Your task to perform on an android device: turn pop-ups on in chrome Image 0: 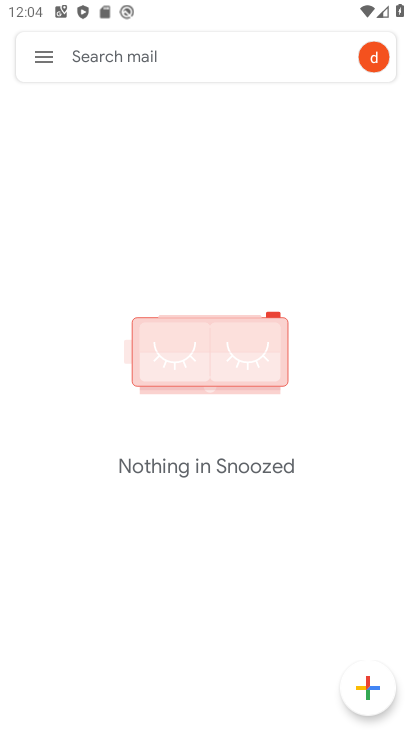
Step 0: press home button
Your task to perform on an android device: turn pop-ups on in chrome Image 1: 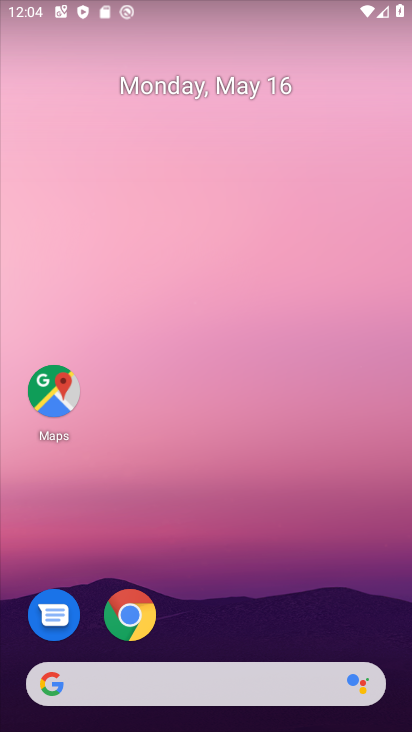
Step 1: drag from (243, 650) to (282, 8)
Your task to perform on an android device: turn pop-ups on in chrome Image 2: 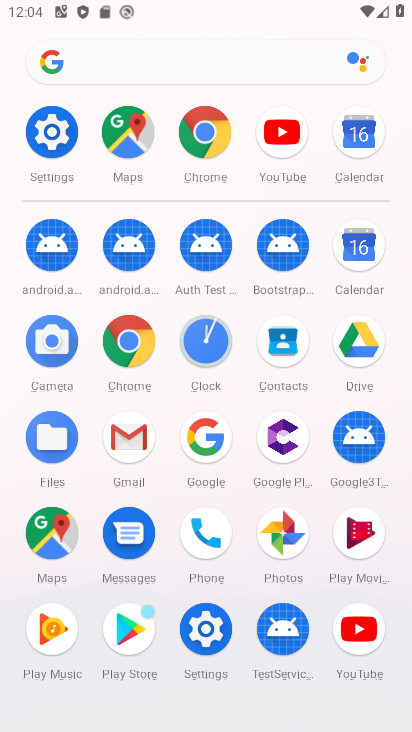
Step 2: click (132, 345)
Your task to perform on an android device: turn pop-ups on in chrome Image 3: 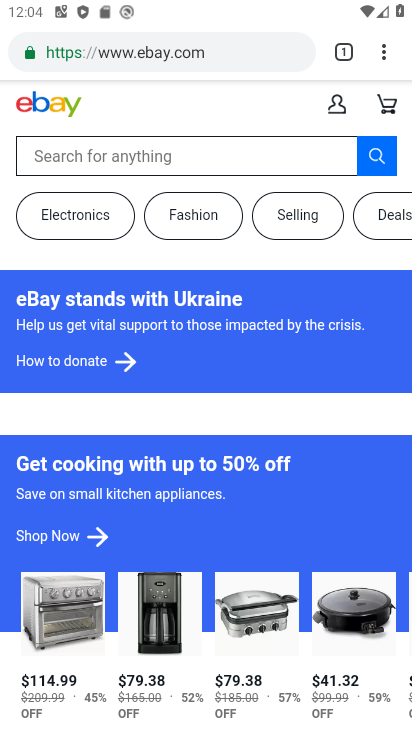
Step 3: drag from (382, 44) to (281, 500)
Your task to perform on an android device: turn pop-ups on in chrome Image 4: 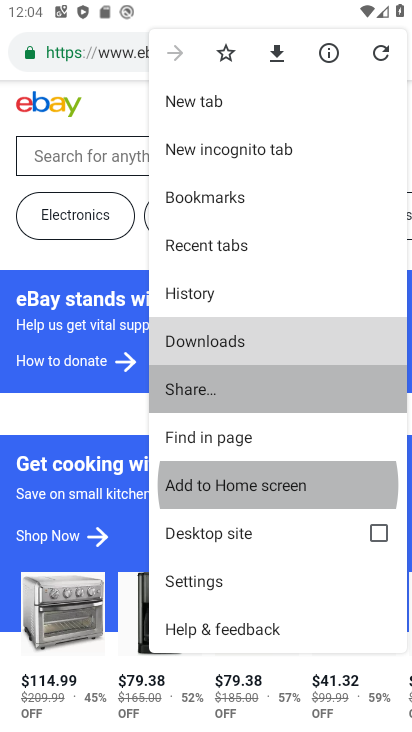
Step 4: click (279, 549)
Your task to perform on an android device: turn pop-ups on in chrome Image 5: 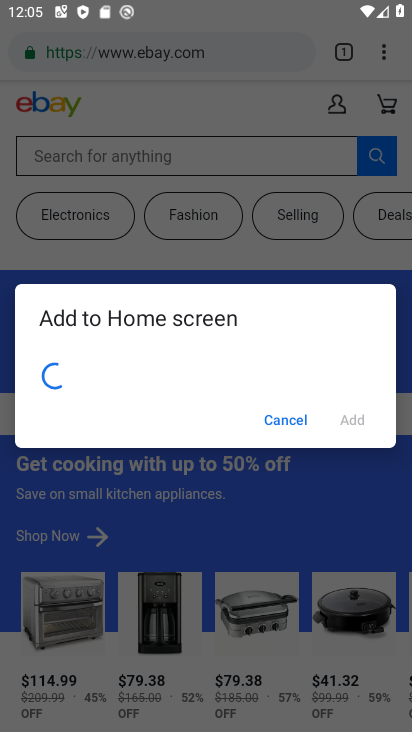
Step 5: click (269, 416)
Your task to perform on an android device: turn pop-ups on in chrome Image 6: 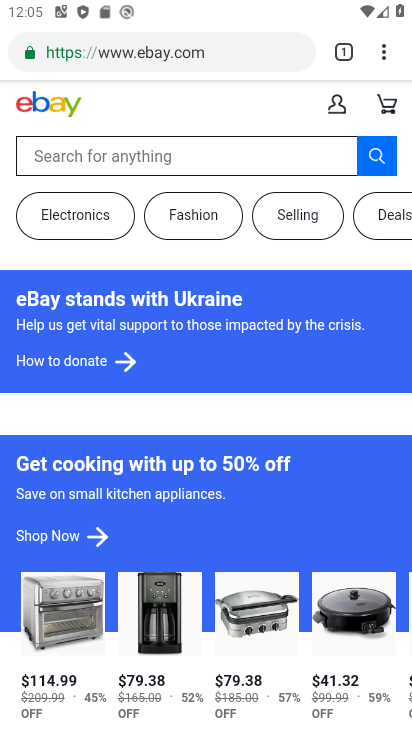
Step 6: click (283, 427)
Your task to perform on an android device: turn pop-ups on in chrome Image 7: 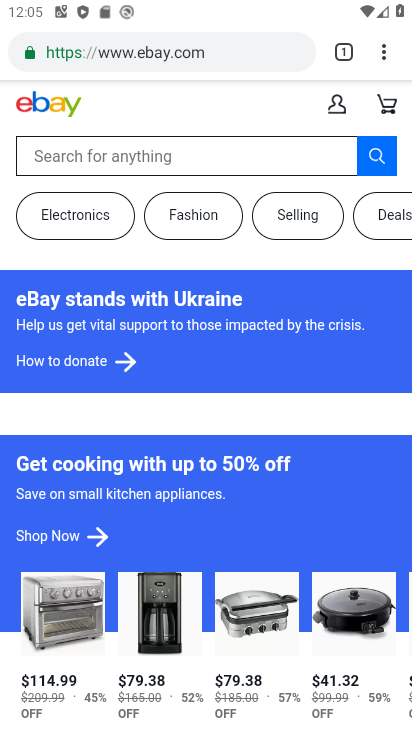
Step 7: drag from (376, 48) to (215, 579)
Your task to perform on an android device: turn pop-ups on in chrome Image 8: 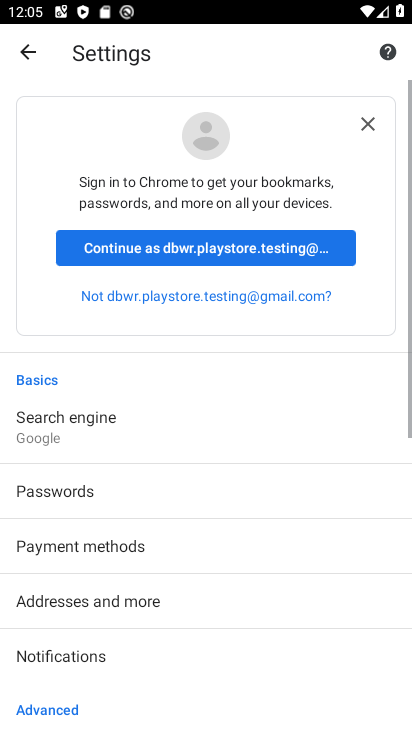
Step 8: drag from (160, 581) to (158, 29)
Your task to perform on an android device: turn pop-ups on in chrome Image 9: 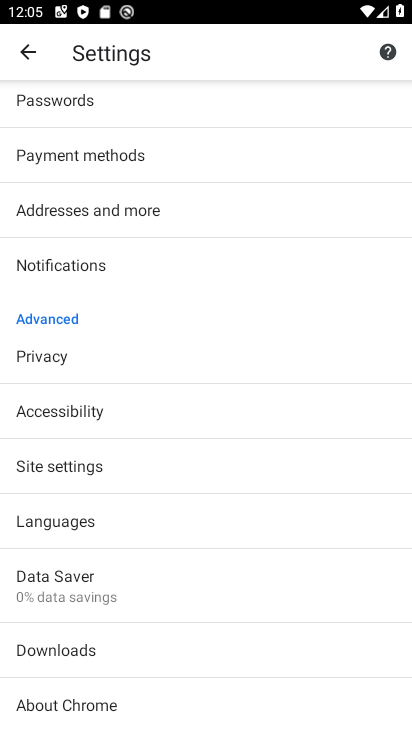
Step 9: click (89, 474)
Your task to perform on an android device: turn pop-ups on in chrome Image 10: 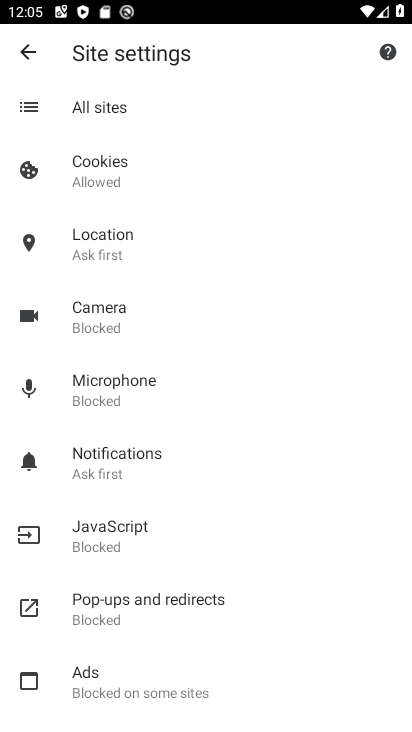
Step 10: click (146, 600)
Your task to perform on an android device: turn pop-ups on in chrome Image 11: 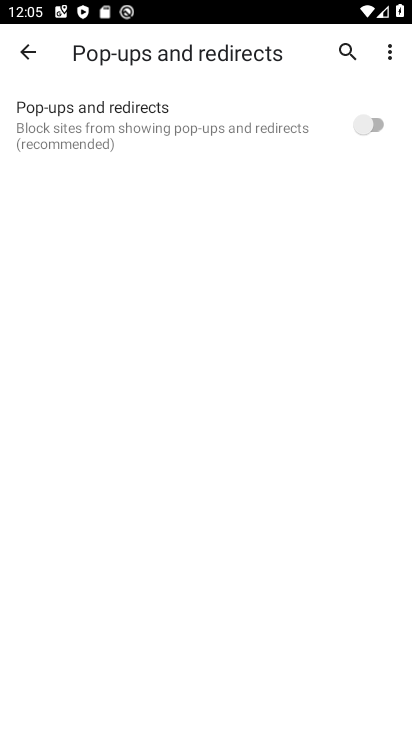
Step 11: click (379, 125)
Your task to perform on an android device: turn pop-ups on in chrome Image 12: 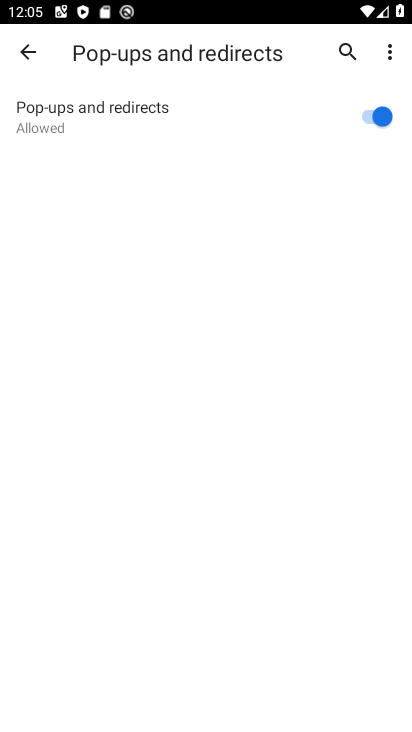
Step 12: task complete